Your task to perform on an android device: Check the news Image 0: 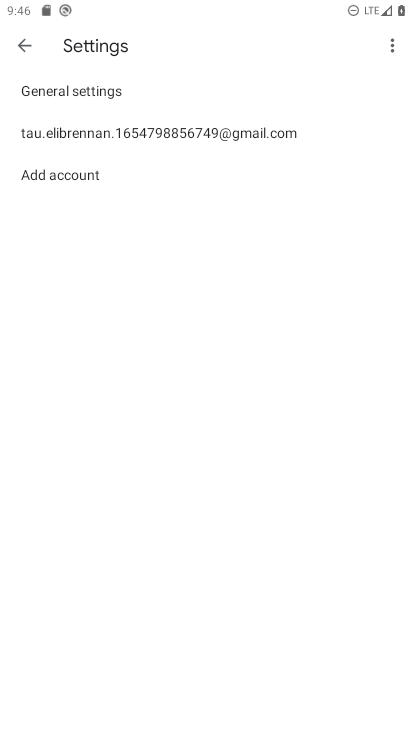
Step 0: press home button
Your task to perform on an android device: Check the news Image 1: 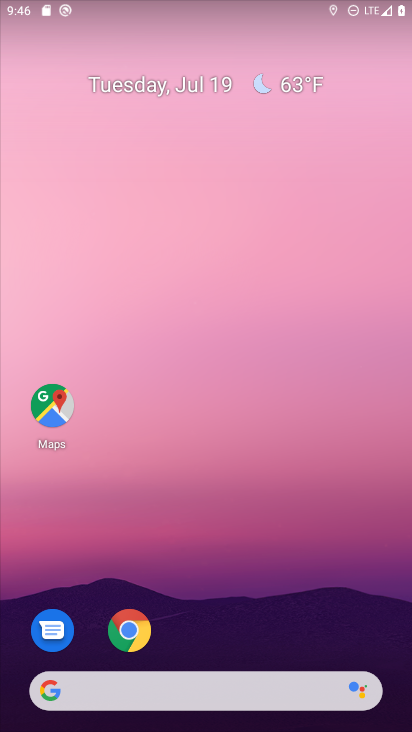
Step 1: drag from (199, 700) to (196, 148)
Your task to perform on an android device: Check the news Image 2: 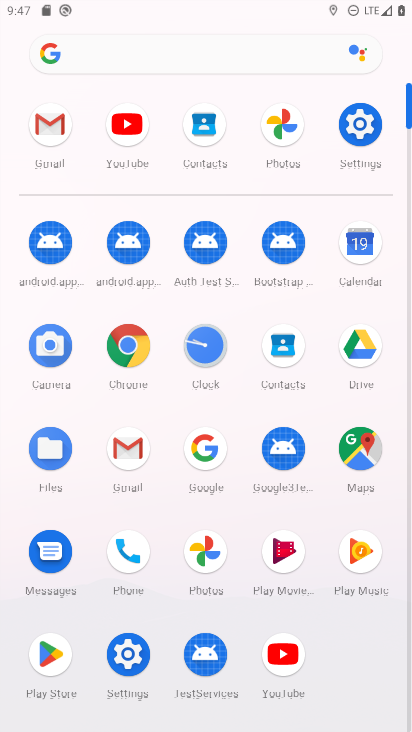
Step 2: click (203, 447)
Your task to perform on an android device: Check the news Image 3: 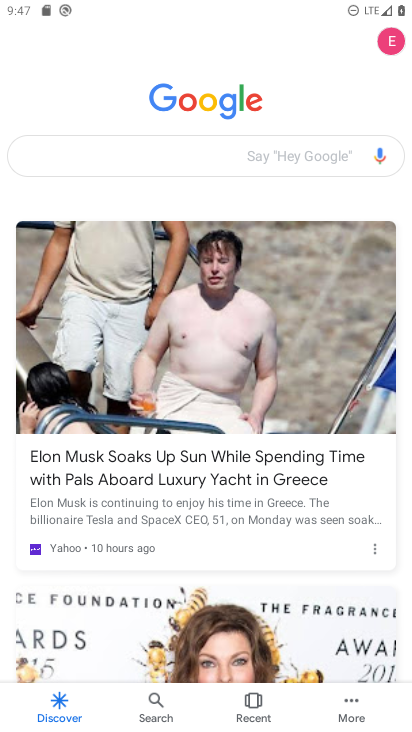
Step 3: click (165, 475)
Your task to perform on an android device: Check the news Image 4: 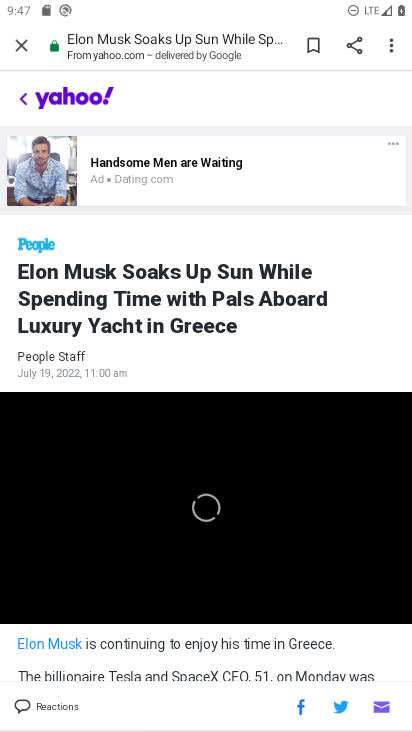
Step 4: task complete